Your task to perform on an android device: Open Google Image 0: 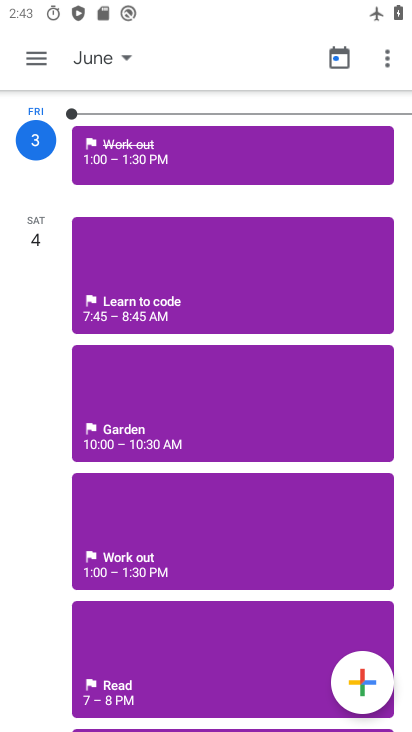
Step 0: press back button
Your task to perform on an android device: Open Google Image 1: 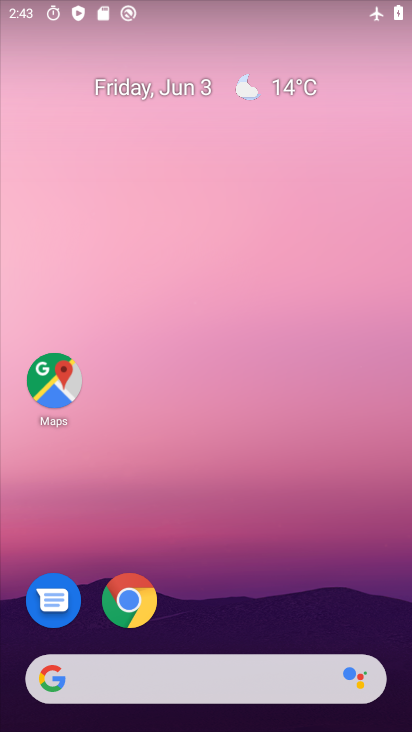
Step 1: click (125, 595)
Your task to perform on an android device: Open Google Image 2: 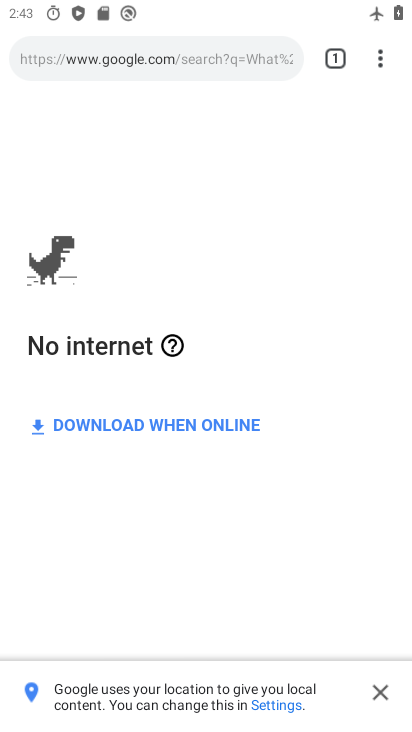
Step 2: click (174, 58)
Your task to perform on an android device: Open Google Image 3: 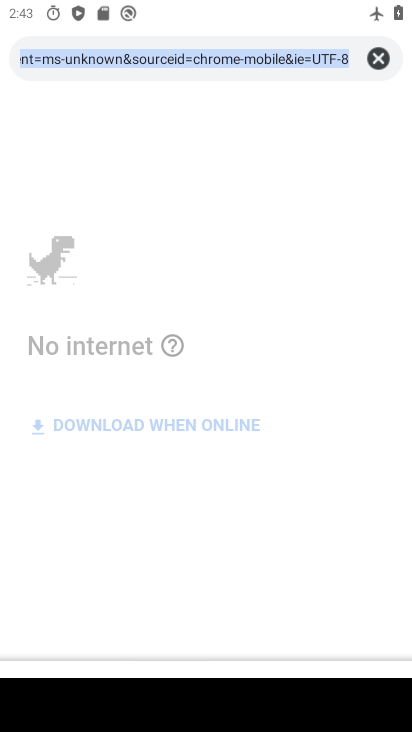
Step 3: click (377, 57)
Your task to perform on an android device: Open Google Image 4: 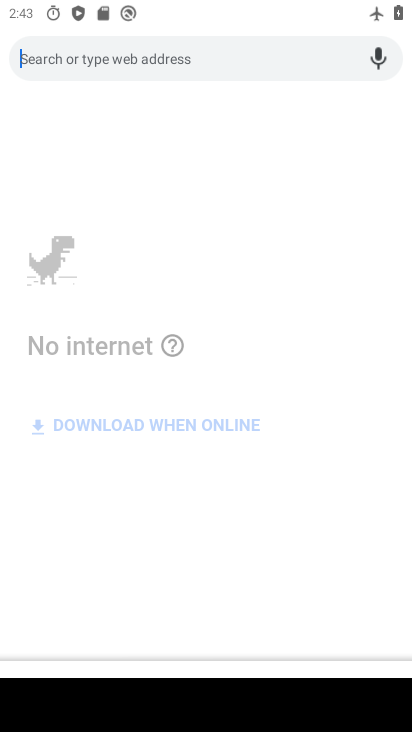
Step 4: type "Google"
Your task to perform on an android device: Open Google Image 5: 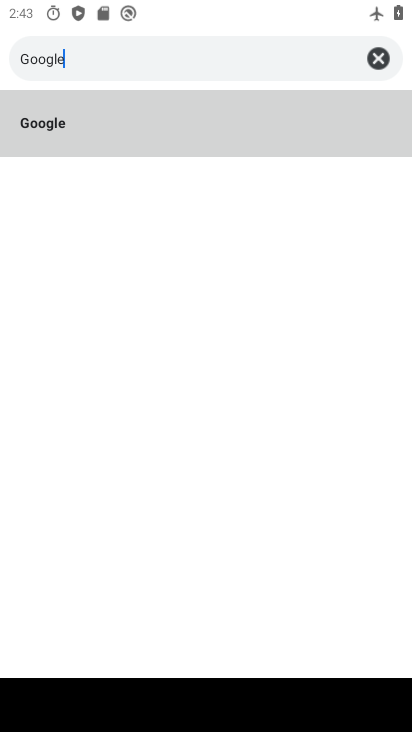
Step 5: type ""
Your task to perform on an android device: Open Google Image 6: 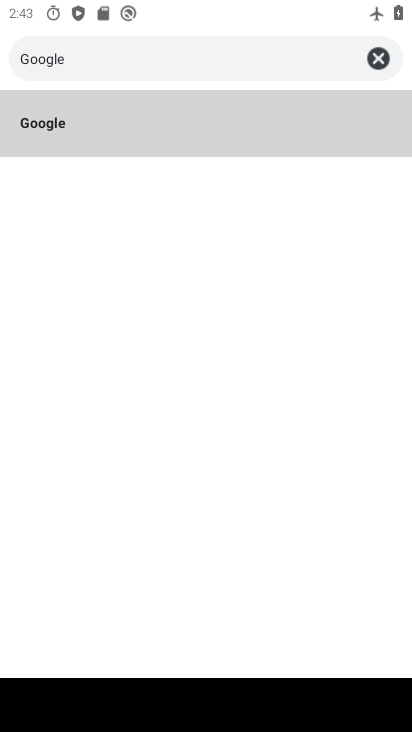
Step 6: click (137, 135)
Your task to perform on an android device: Open Google Image 7: 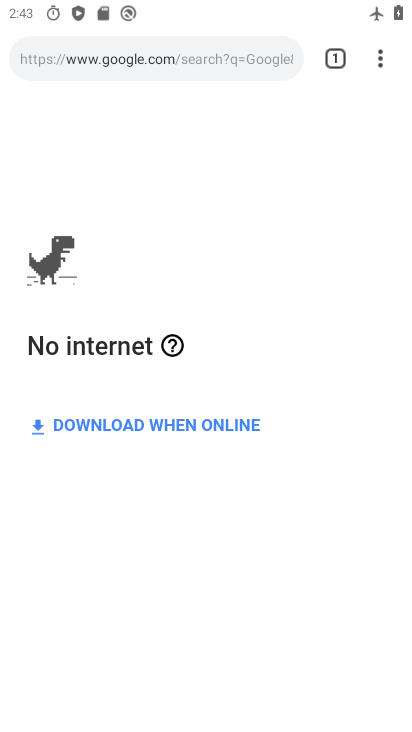
Step 7: task complete